Your task to perform on an android device: check the backup settings in the google photos Image 0: 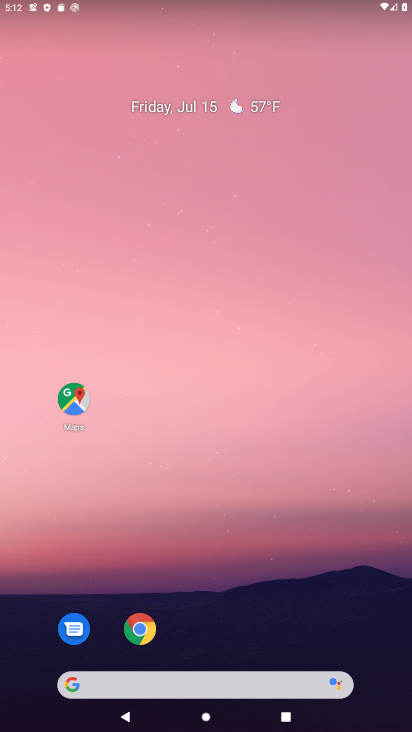
Step 0: drag from (281, 643) to (272, 239)
Your task to perform on an android device: check the backup settings in the google photos Image 1: 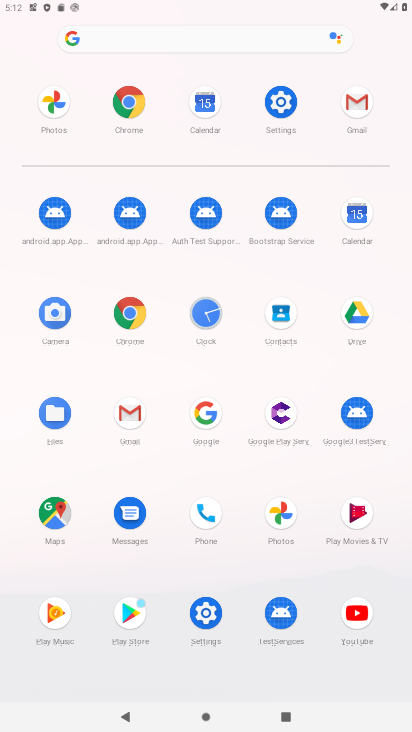
Step 1: click (292, 513)
Your task to perform on an android device: check the backup settings in the google photos Image 2: 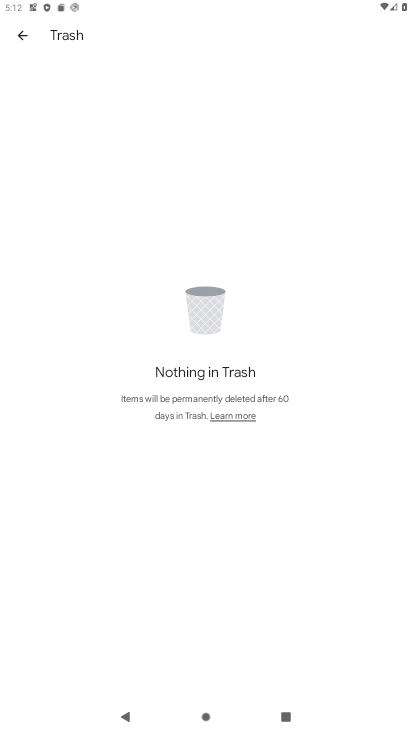
Step 2: click (14, 39)
Your task to perform on an android device: check the backup settings in the google photos Image 3: 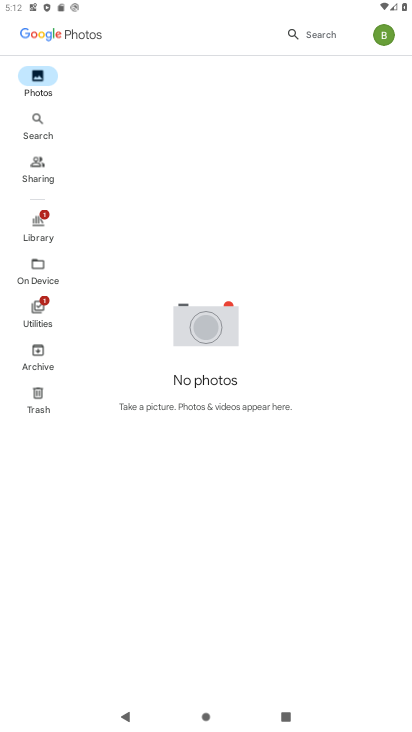
Step 3: click (386, 16)
Your task to perform on an android device: check the backup settings in the google photos Image 4: 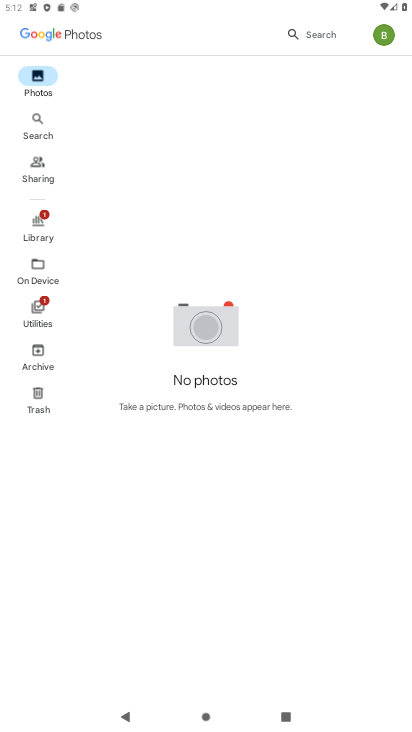
Step 4: click (379, 26)
Your task to perform on an android device: check the backup settings in the google photos Image 5: 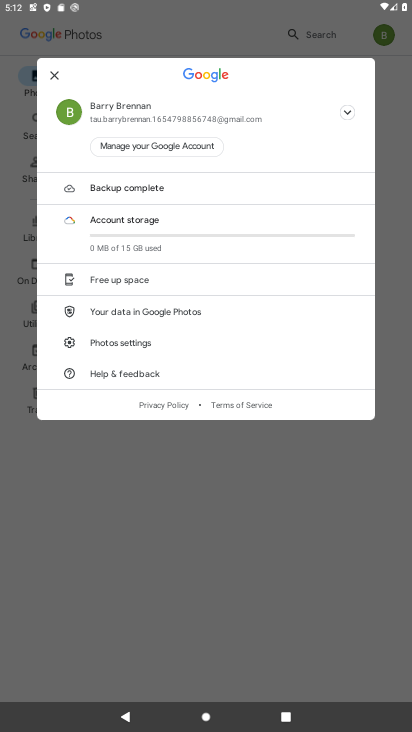
Step 5: click (133, 340)
Your task to perform on an android device: check the backup settings in the google photos Image 6: 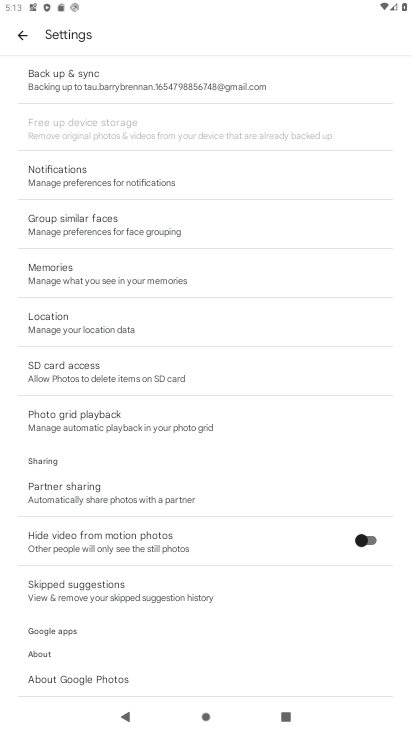
Step 6: click (90, 83)
Your task to perform on an android device: check the backup settings in the google photos Image 7: 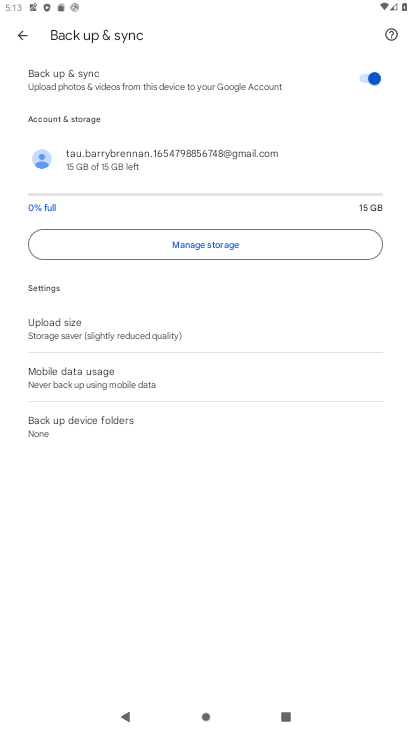
Step 7: task complete